Your task to perform on an android device: Go to ESPN.com Image 0: 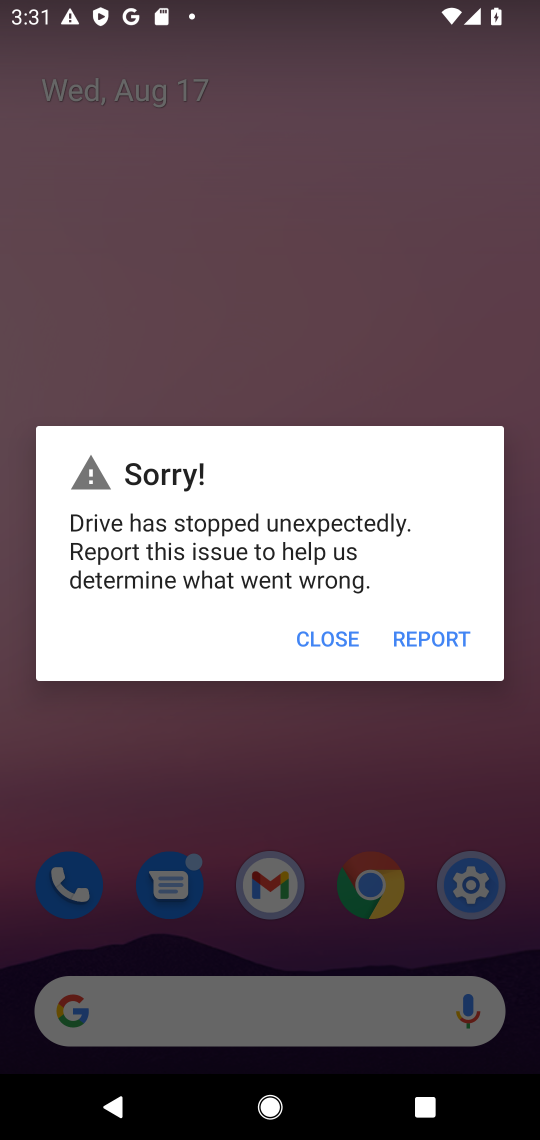
Step 0: press home button
Your task to perform on an android device: Go to ESPN.com Image 1: 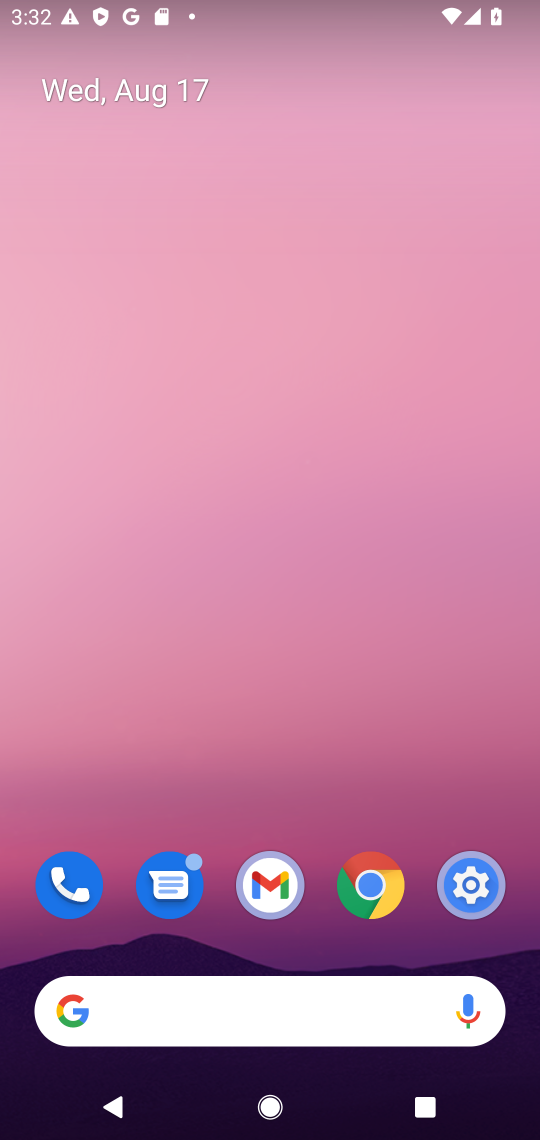
Step 1: click (374, 887)
Your task to perform on an android device: Go to ESPN.com Image 2: 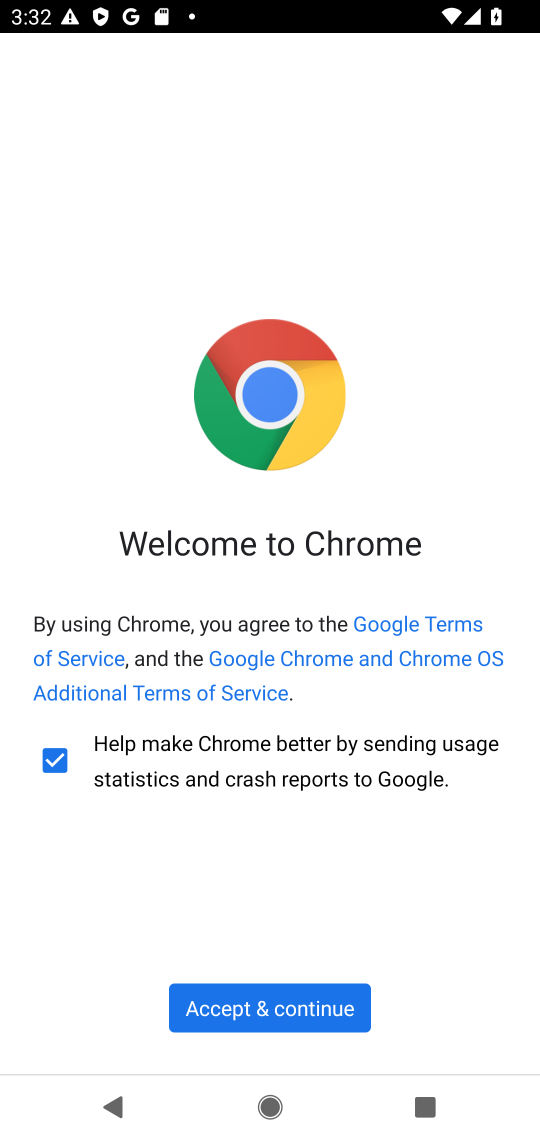
Step 2: click (255, 1014)
Your task to perform on an android device: Go to ESPN.com Image 3: 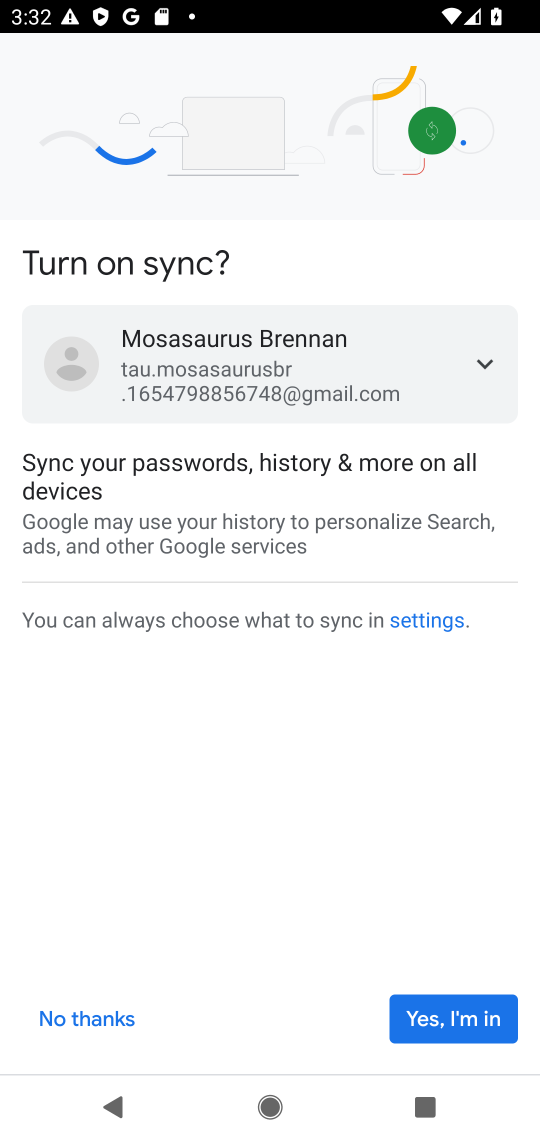
Step 3: click (457, 1027)
Your task to perform on an android device: Go to ESPN.com Image 4: 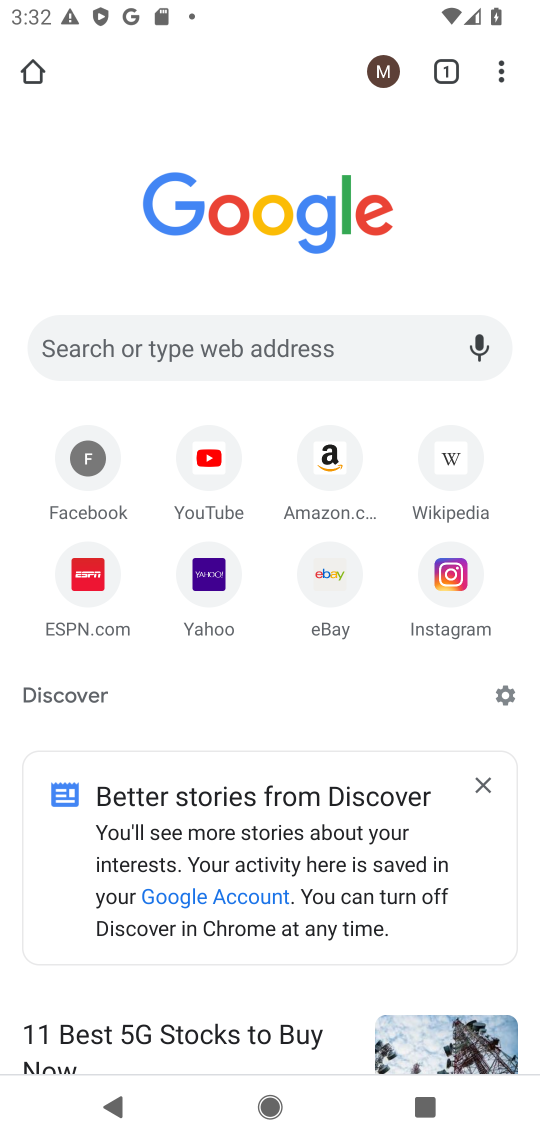
Step 4: click (89, 582)
Your task to perform on an android device: Go to ESPN.com Image 5: 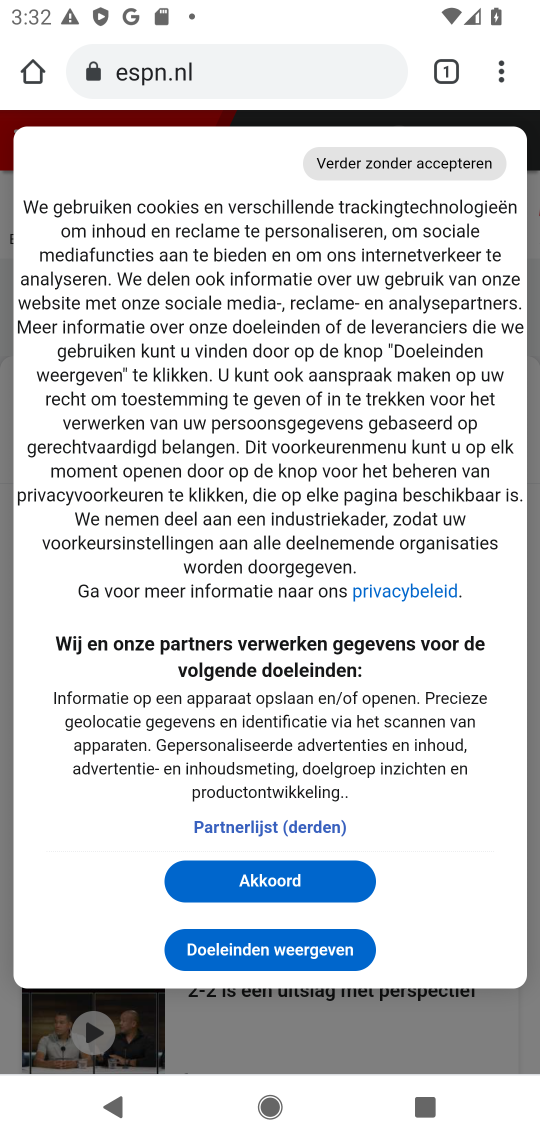
Step 5: click (275, 884)
Your task to perform on an android device: Go to ESPN.com Image 6: 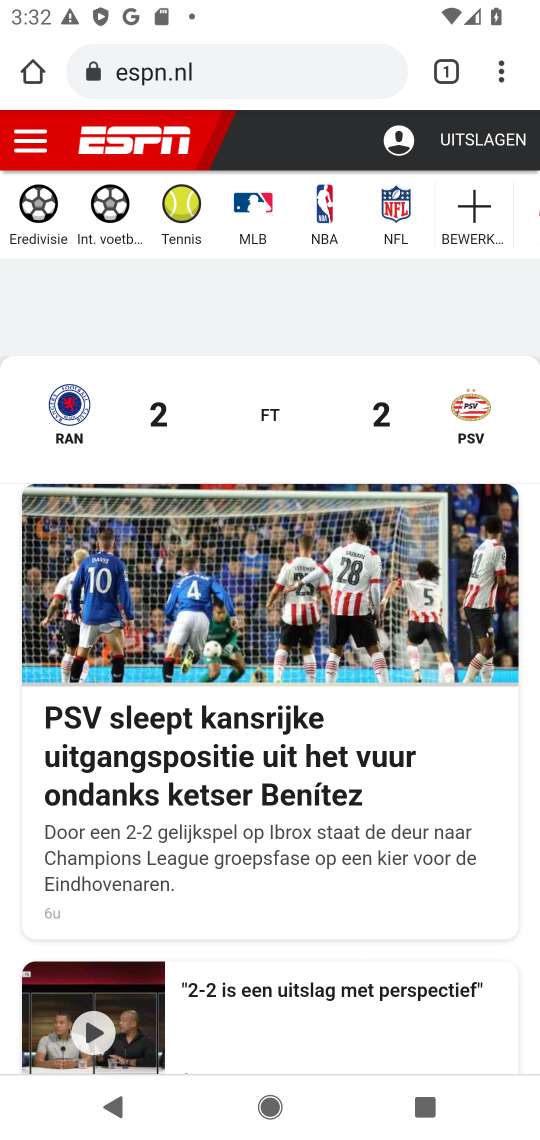
Step 6: task complete